Your task to perform on an android device: turn on notifications settings in the gmail app Image 0: 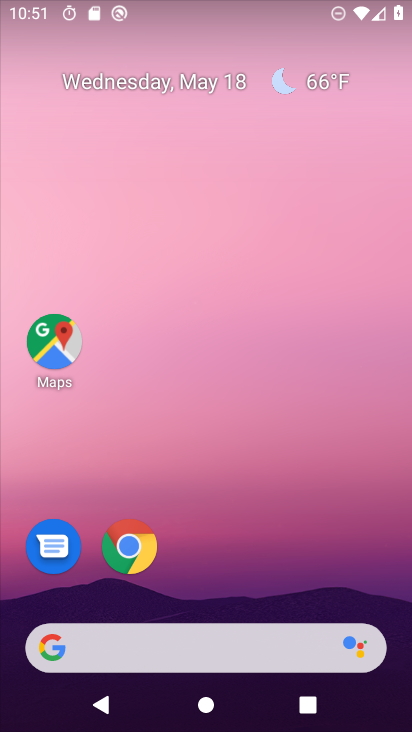
Step 0: drag from (204, 609) to (238, 113)
Your task to perform on an android device: turn on notifications settings in the gmail app Image 1: 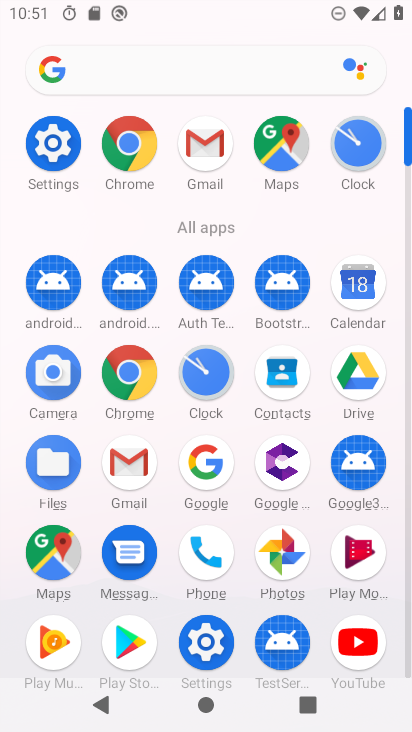
Step 1: click (205, 155)
Your task to perform on an android device: turn on notifications settings in the gmail app Image 2: 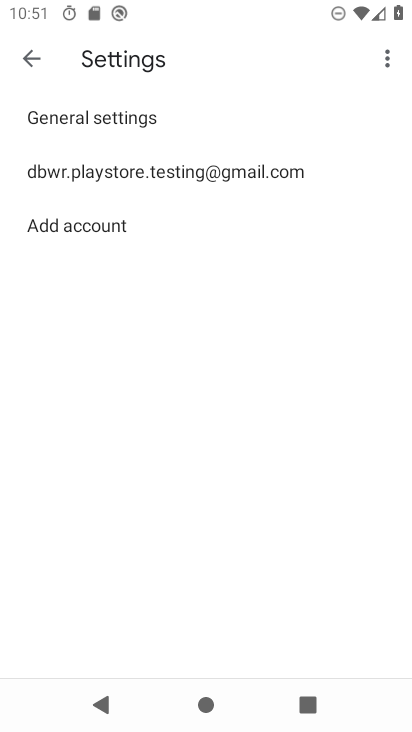
Step 2: click (205, 155)
Your task to perform on an android device: turn on notifications settings in the gmail app Image 3: 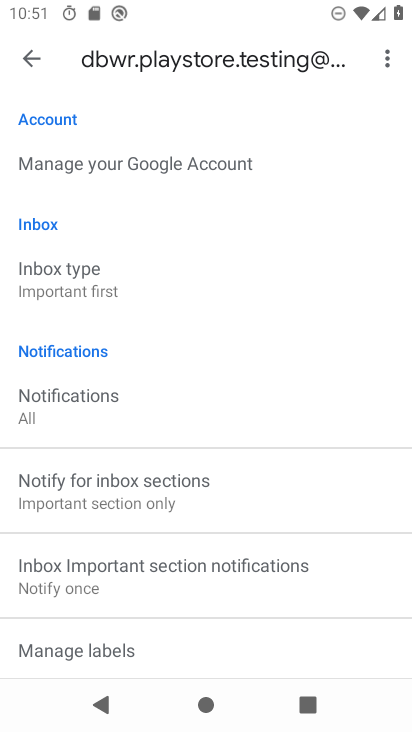
Step 3: click (27, 412)
Your task to perform on an android device: turn on notifications settings in the gmail app Image 4: 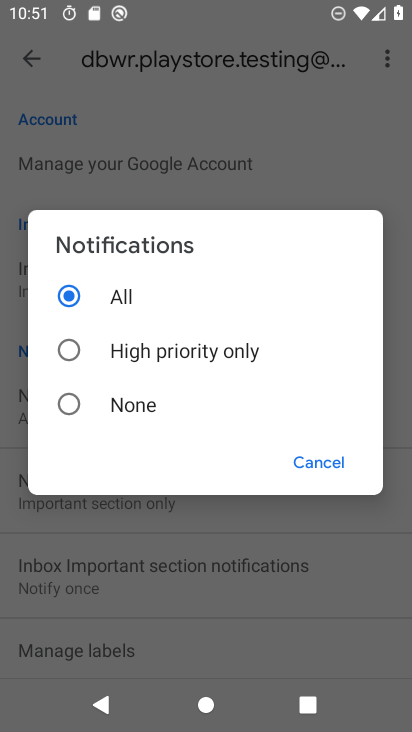
Step 4: task complete